Your task to perform on an android device: star an email in the gmail app Image 0: 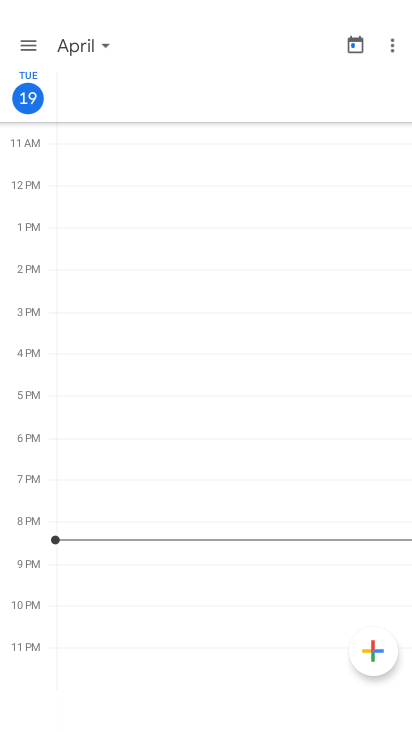
Step 0: press home button
Your task to perform on an android device: star an email in the gmail app Image 1: 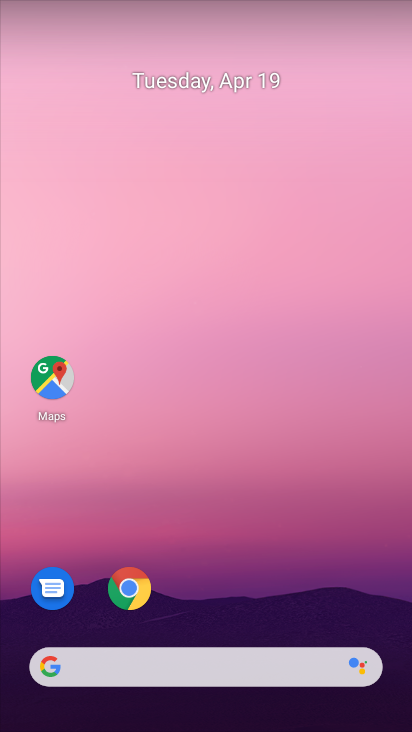
Step 1: drag from (206, 478) to (248, 59)
Your task to perform on an android device: star an email in the gmail app Image 2: 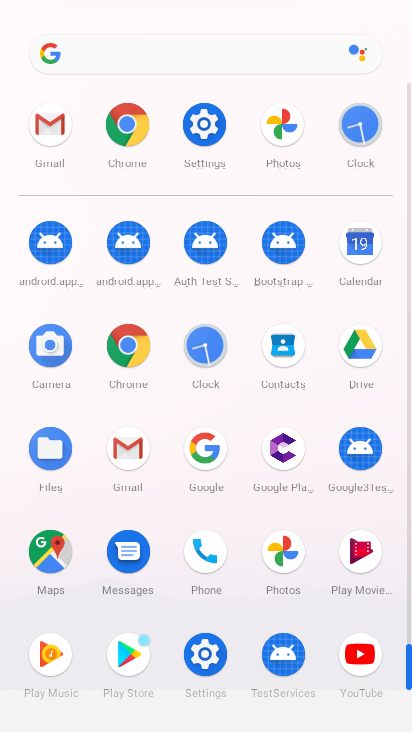
Step 2: click (126, 442)
Your task to perform on an android device: star an email in the gmail app Image 3: 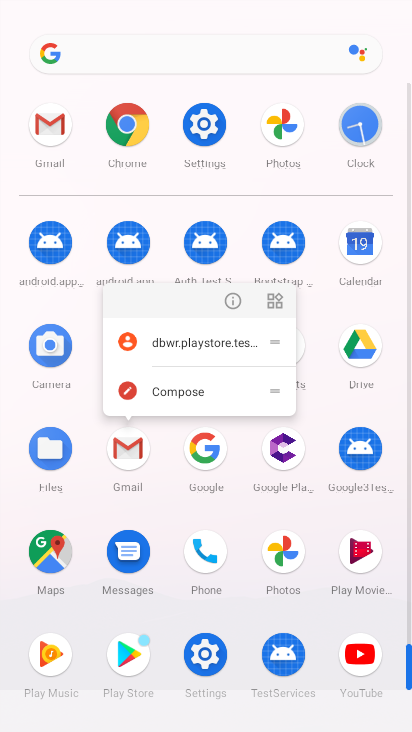
Step 3: click (129, 447)
Your task to perform on an android device: star an email in the gmail app Image 4: 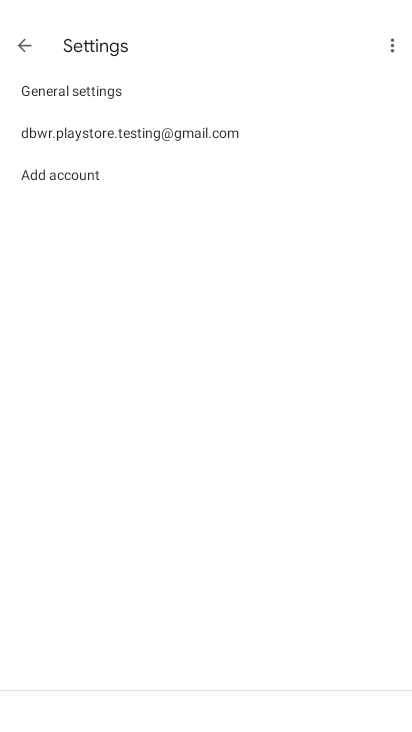
Step 4: click (25, 48)
Your task to perform on an android device: star an email in the gmail app Image 5: 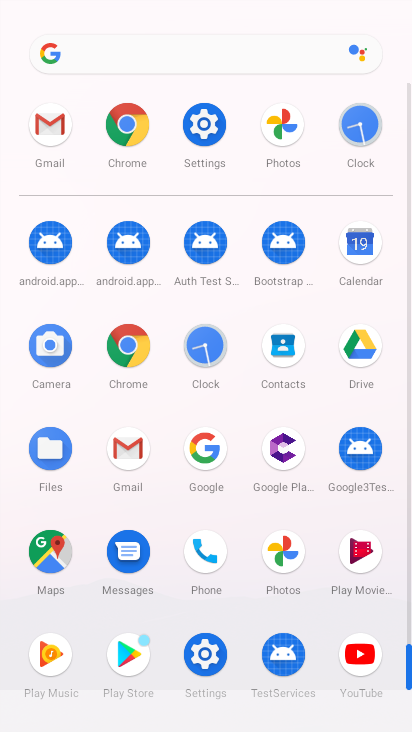
Step 5: click (128, 439)
Your task to perform on an android device: star an email in the gmail app Image 6: 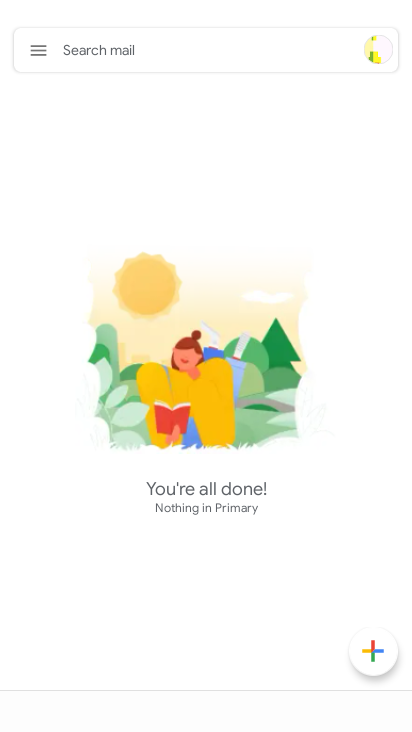
Step 6: task complete